Your task to perform on an android device: clear history in the chrome app Image 0: 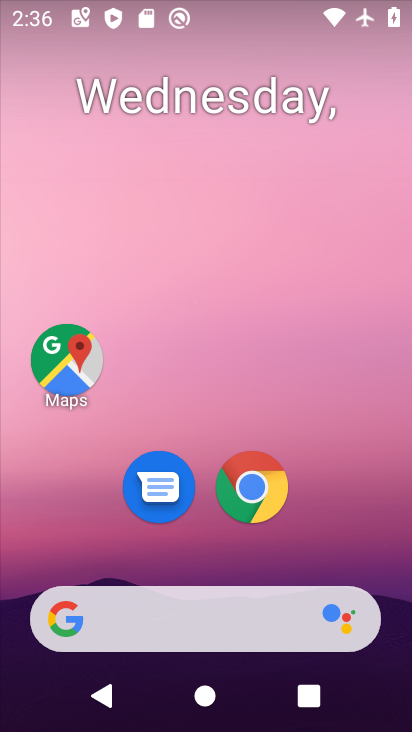
Step 0: drag from (332, 546) to (411, 77)
Your task to perform on an android device: clear history in the chrome app Image 1: 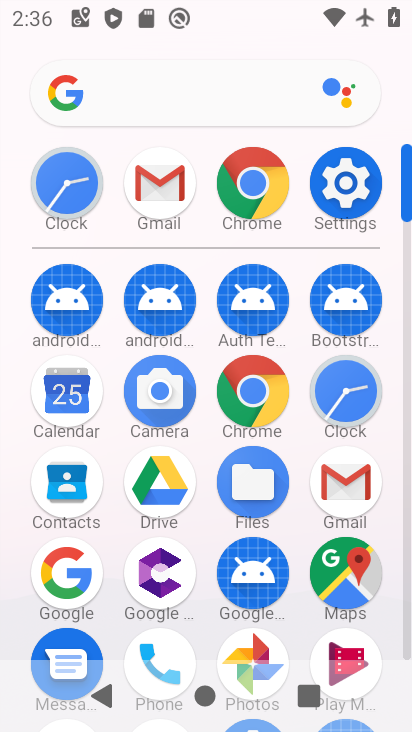
Step 1: click (253, 213)
Your task to perform on an android device: clear history in the chrome app Image 2: 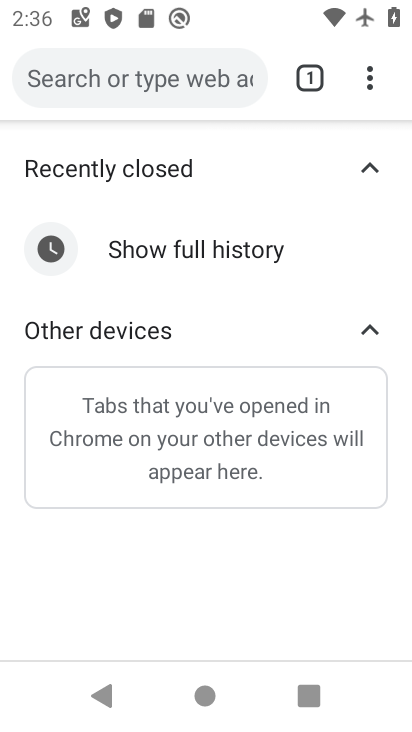
Step 2: task complete